Your task to perform on an android device: Go to battery settings Image 0: 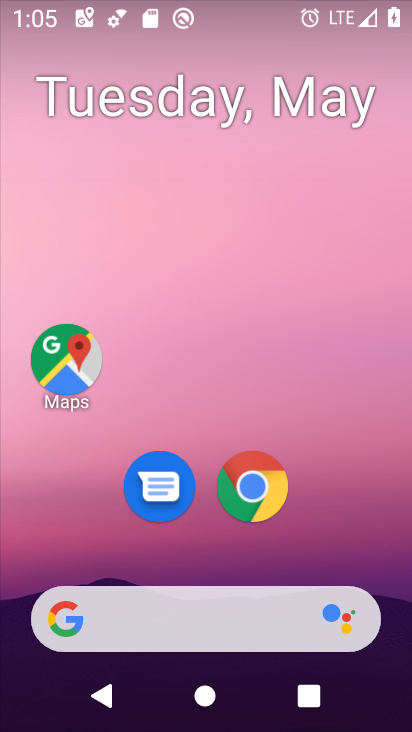
Step 0: drag from (0, 0) to (267, 86)
Your task to perform on an android device: Go to battery settings Image 1: 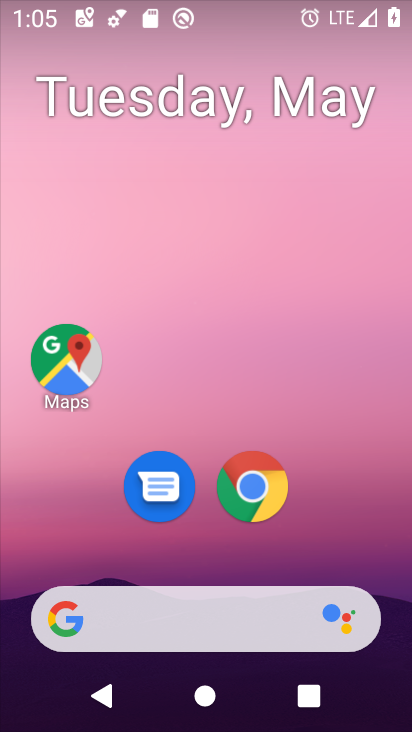
Step 1: drag from (0, 524) to (280, 227)
Your task to perform on an android device: Go to battery settings Image 2: 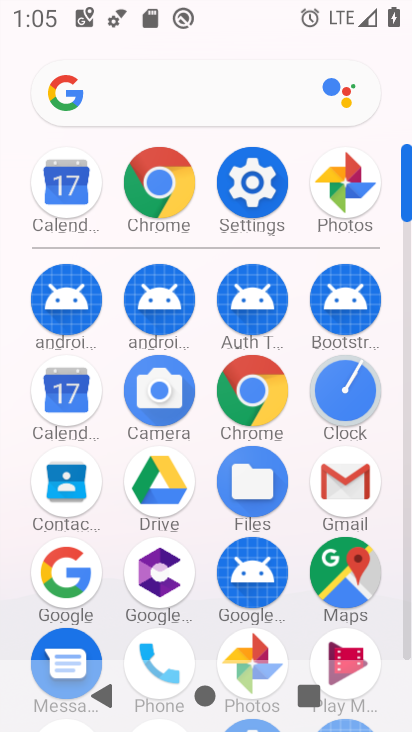
Step 2: drag from (1, 639) to (313, 198)
Your task to perform on an android device: Go to battery settings Image 3: 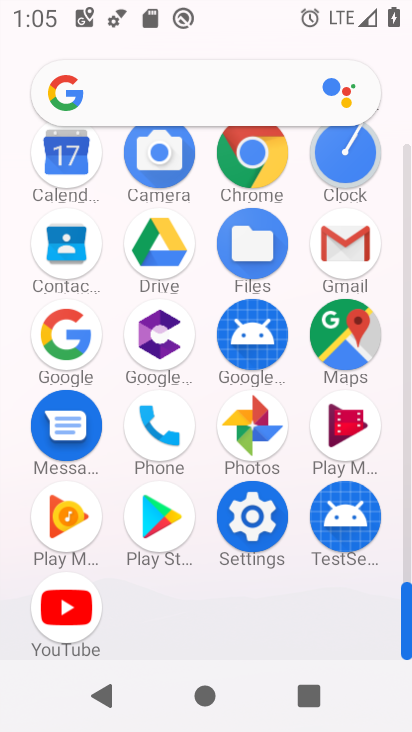
Step 3: click (254, 512)
Your task to perform on an android device: Go to battery settings Image 4: 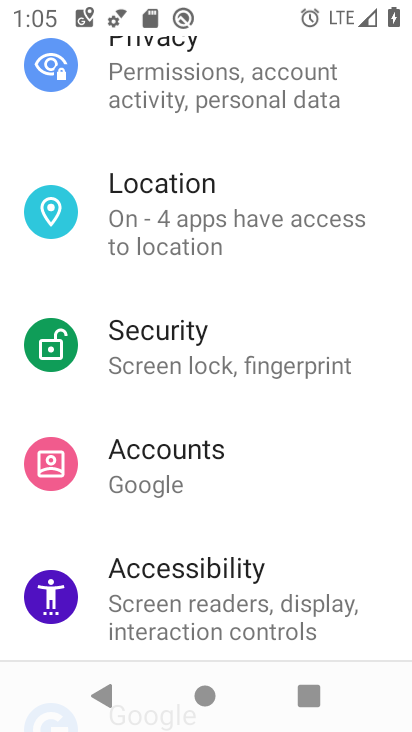
Step 4: drag from (16, 411) to (208, 113)
Your task to perform on an android device: Go to battery settings Image 5: 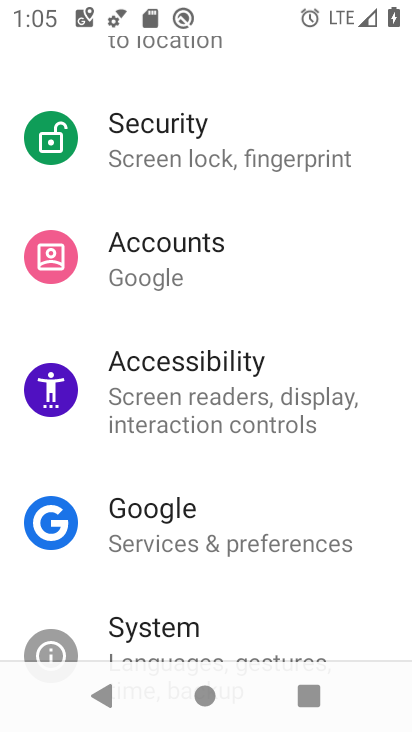
Step 5: drag from (260, 115) to (173, 613)
Your task to perform on an android device: Go to battery settings Image 6: 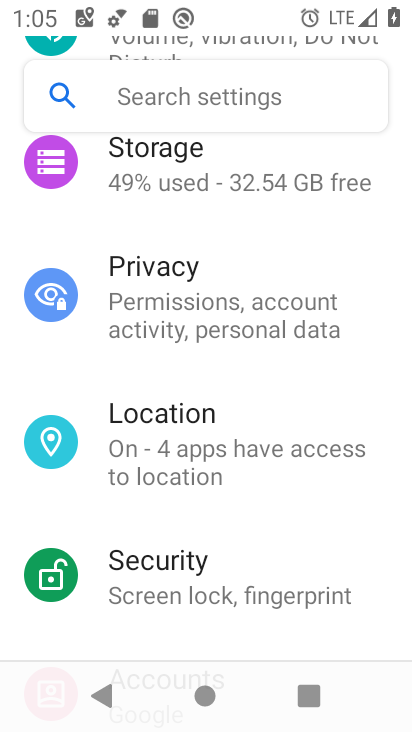
Step 6: drag from (126, 169) to (129, 581)
Your task to perform on an android device: Go to battery settings Image 7: 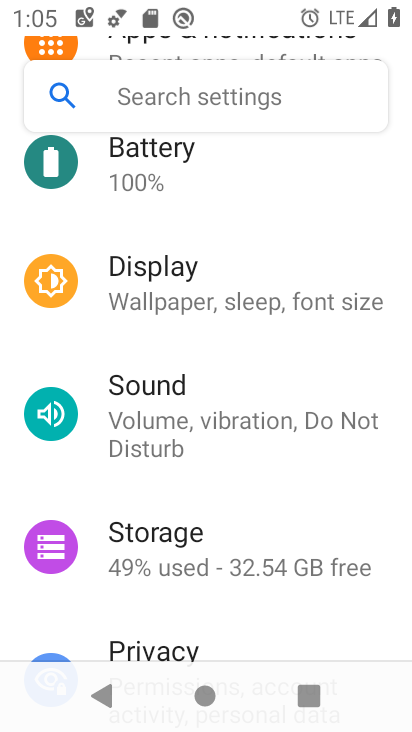
Step 7: click (126, 174)
Your task to perform on an android device: Go to battery settings Image 8: 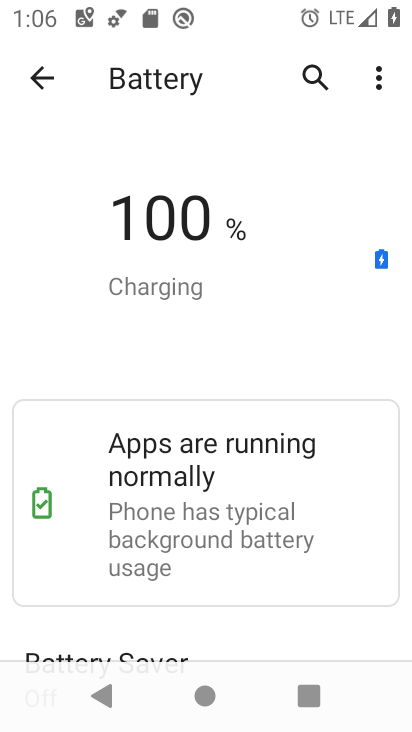
Step 8: task complete